Your task to perform on an android device: turn on priority inbox in the gmail app Image 0: 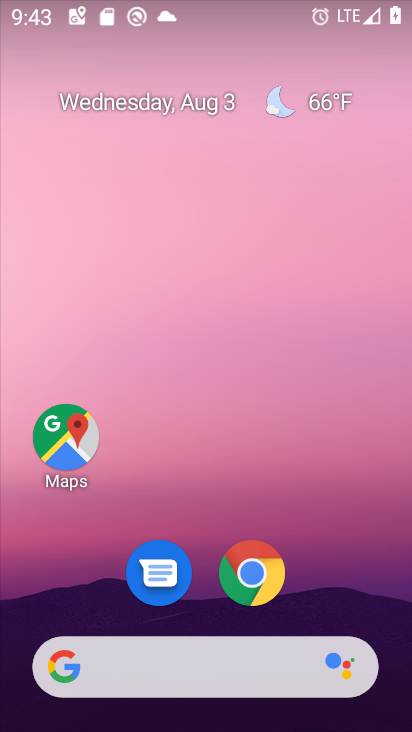
Step 0: drag from (328, 572) to (302, 7)
Your task to perform on an android device: turn on priority inbox in the gmail app Image 1: 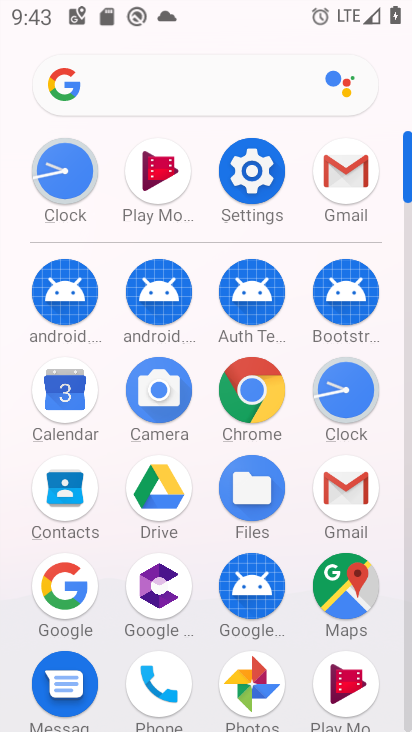
Step 1: click (354, 202)
Your task to perform on an android device: turn on priority inbox in the gmail app Image 2: 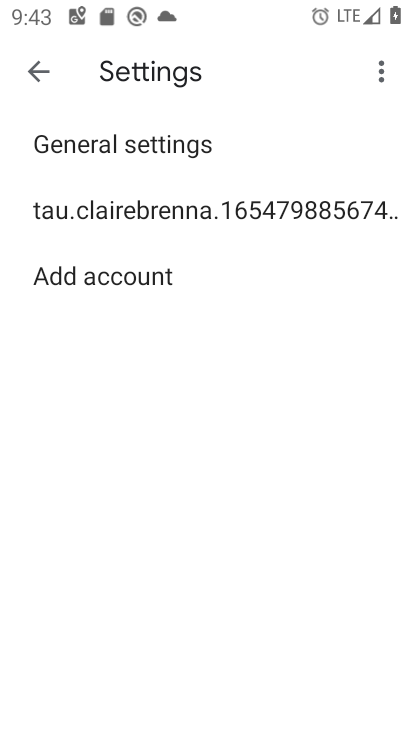
Step 2: click (160, 202)
Your task to perform on an android device: turn on priority inbox in the gmail app Image 3: 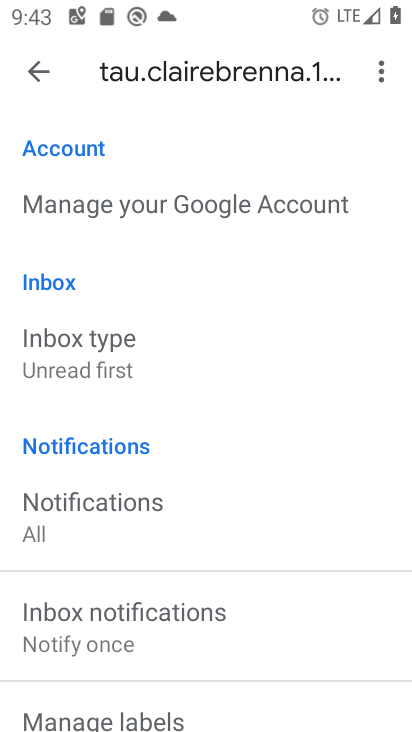
Step 3: drag from (215, 484) to (225, 417)
Your task to perform on an android device: turn on priority inbox in the gmail app Image 4: 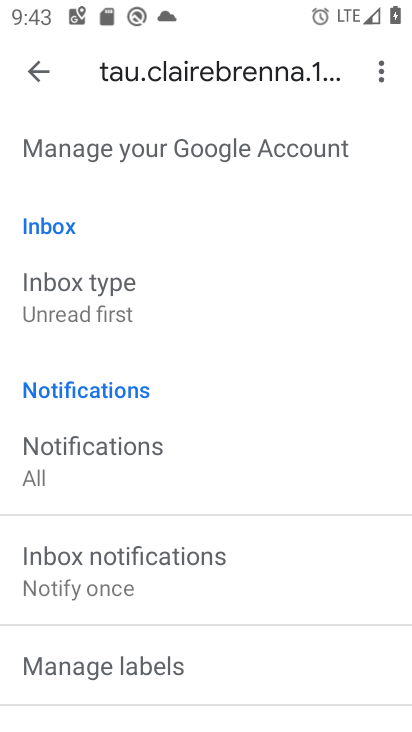
Step 4: click (84, 295)
Your task to perform on an android device: turn on priority inbox in the gmail app Image 5: 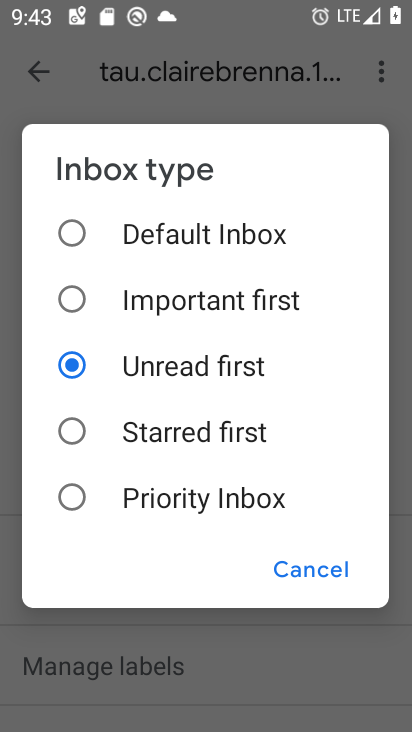
Step 5: click (83, 495)
Your task to perform on an android device: turn on priority inbox in the gmail app Image 6: 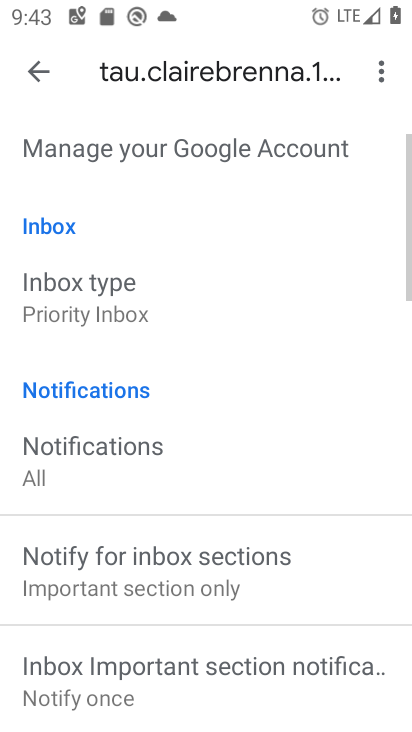
Step 6: task complete